Your task to perform on an android device: empty trash in the gmail app Image 0: 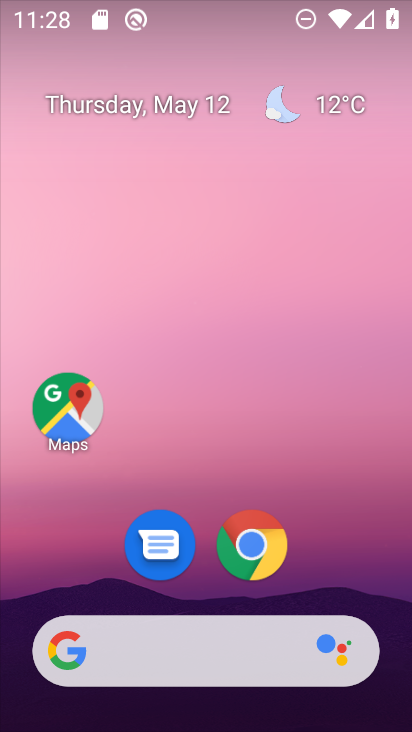
Step 0: drag from (207, 591) to (252, 222)
Your task to perform on an android device: empty trash in the gmail app Image 1: 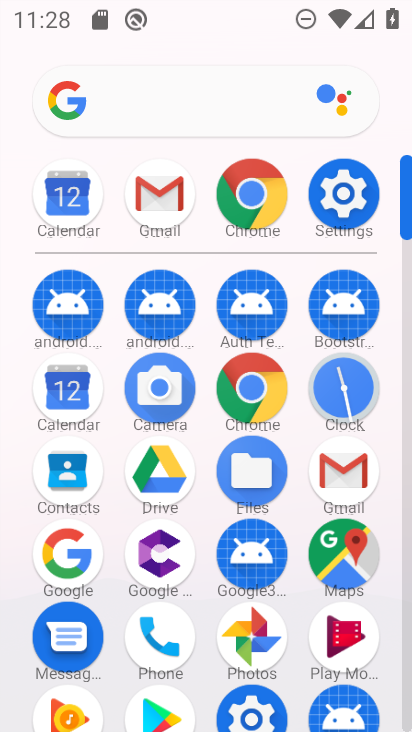
Step 1: click (344, 460)
Your task to perform on an android device: empty trash in the gmail app Image 2: 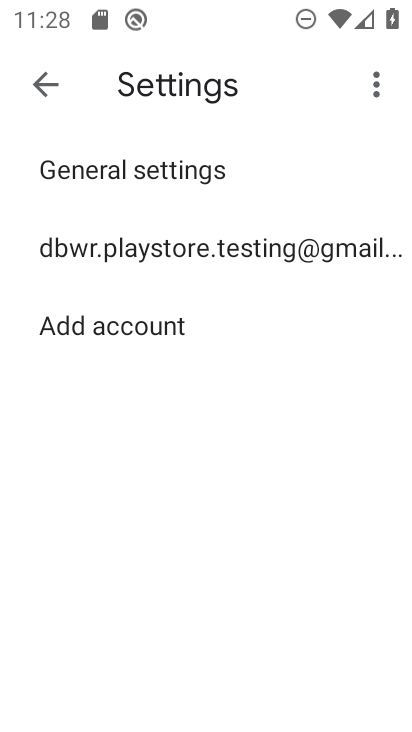
Step 2: click (45, 90)
Your task to perform on an android device: empty trash in the gmail app Image 3: 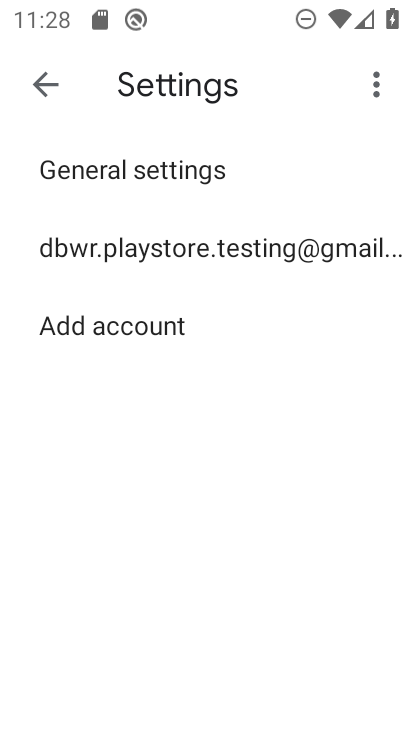
Step 3: click (44, 85)
Your task to perform on an android device: empty trash in the gmail app Image 4: 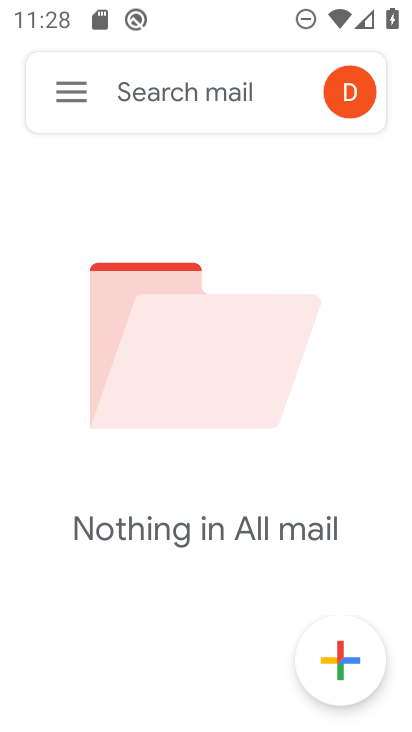
Step 4: click (66, 87)
Your task to perform on an android device: empty trash in the gmail app Image 5: 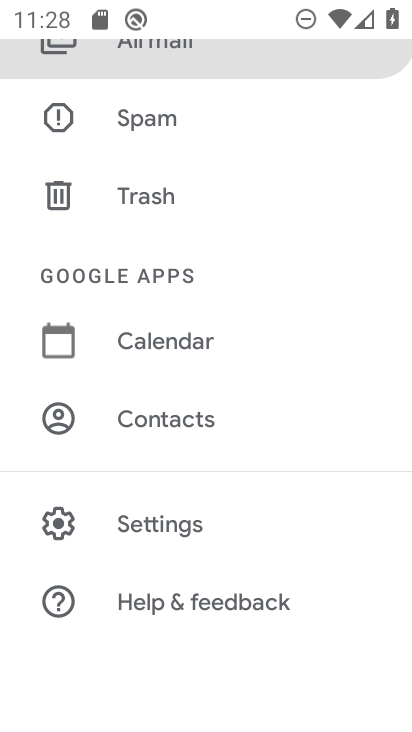
Step 5: click (114, 186)
Your task to perform on an android device: empty trash in the gmail app Image 6: 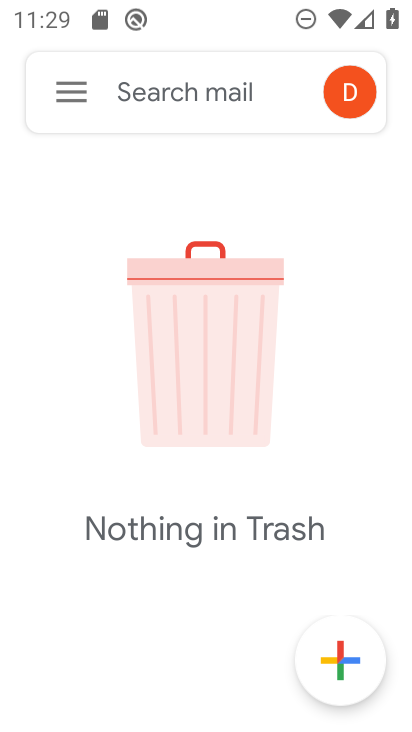
Step 6: task complete